Your task to perform on an android device: toggle improve location accuracy Image 0: 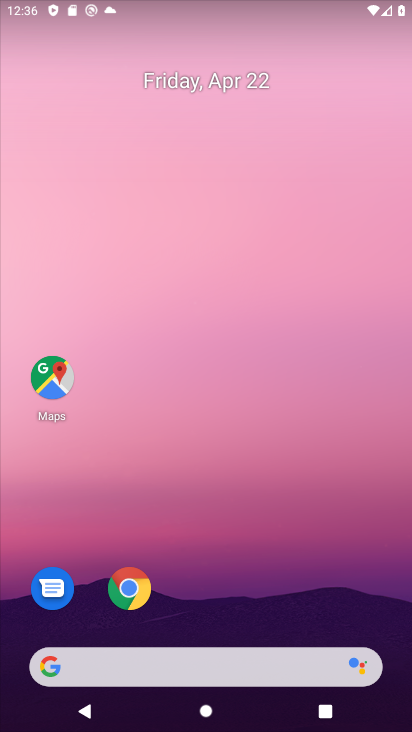
Step 0: drag from (265, 693) to (246, 108)
Your task to perform on an android device: toggle improve location accuracy Image 1: 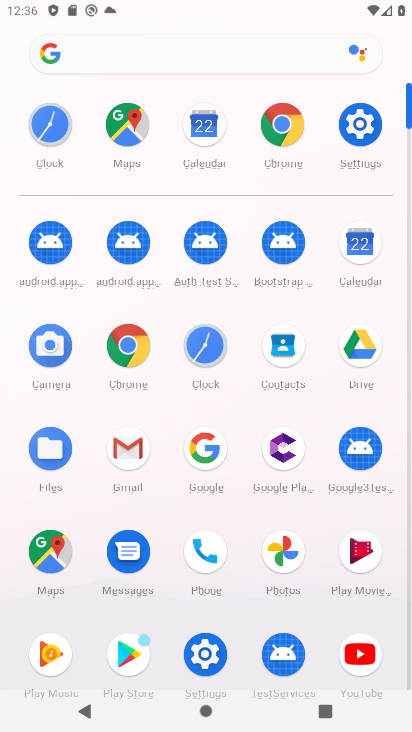
Step 1: click (210, 646)
Your task to perform on an android device: toggle improve location accuracy Image 2: 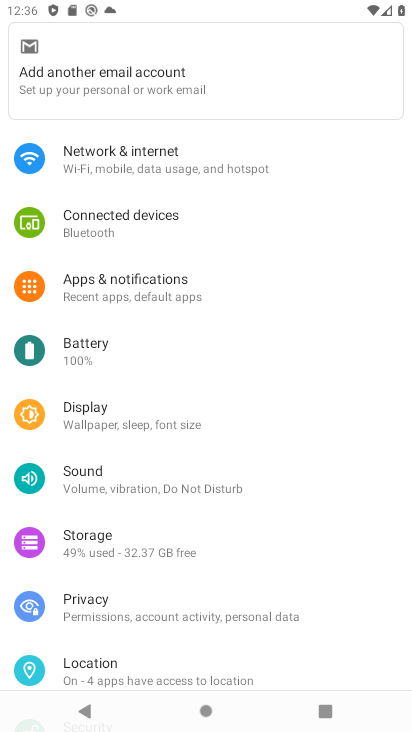
Step 2: click (120, 652)
Your task to perform on an android device: toggle improve location accuracy Image 3: 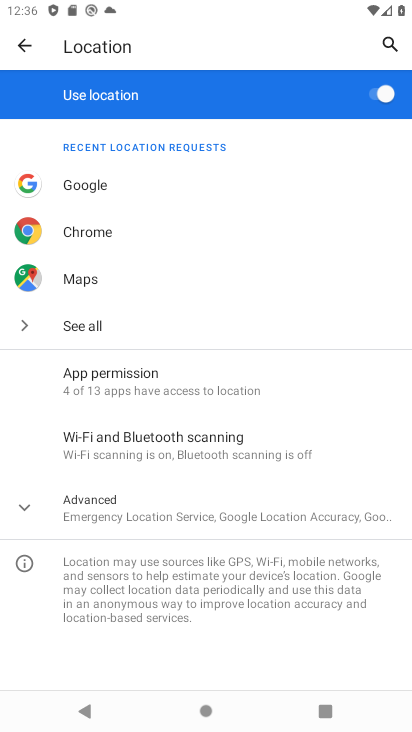
Step 3: click (88, 484)
Your task to perform on an android device: toggle improve location accuracy Image 4: 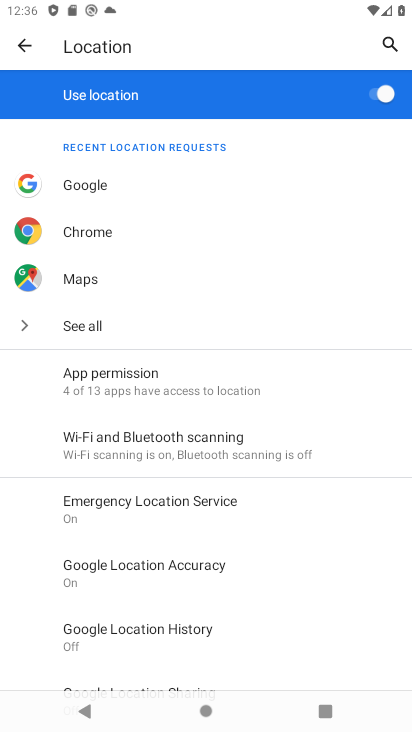
Step 4: click (156, 563)
Your task to perform on an android device: toggle improve location accuracy Image 5: 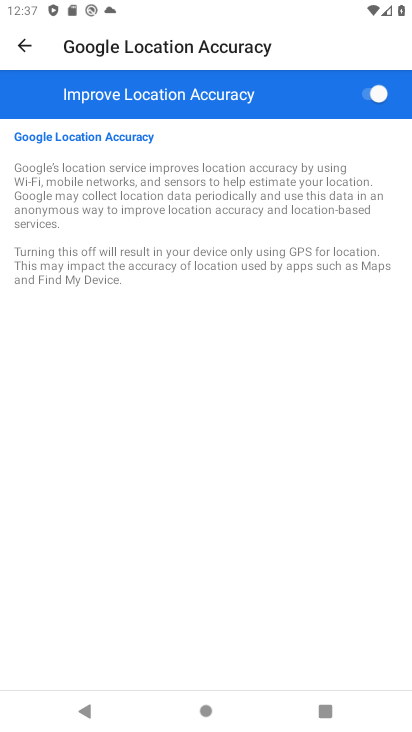
Step 5: click (344, 100)
Your task to perform on an android device: toggle improve location accuracy Image 6: 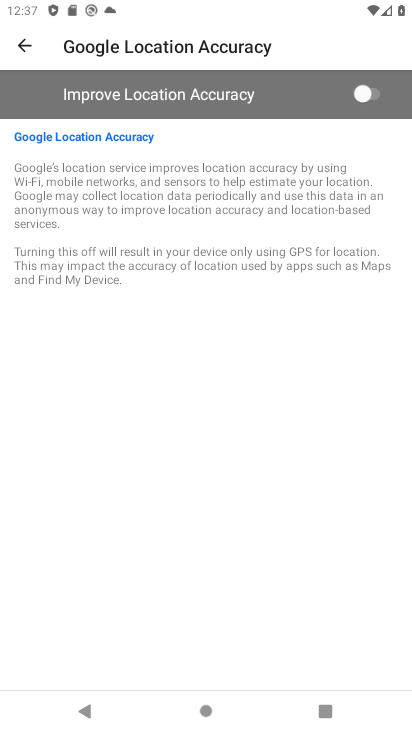
Step 6: click (344, 100)
Your task to perform on an android device: toggle improve location accuracy Image 7: 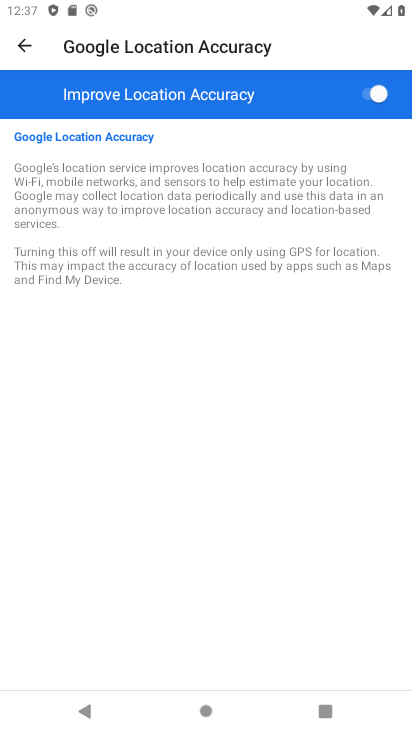
Step 7: task complete